Your task to perform on an android device: Turn off the flashlight Image 0: 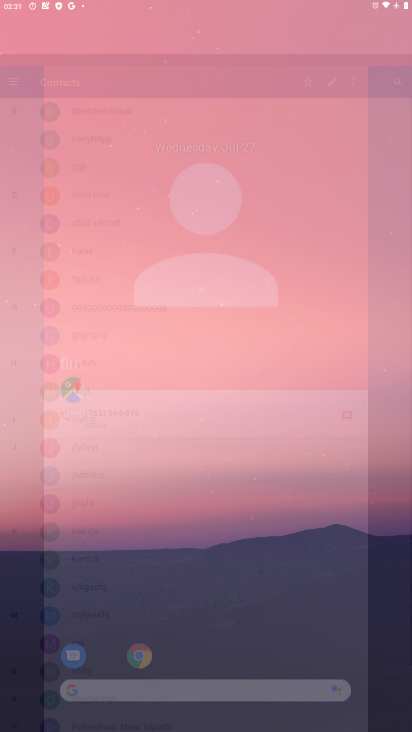
Step 0: click (258, 390)
Your task to perform on an android device: Turn off the flashlight Image 1: 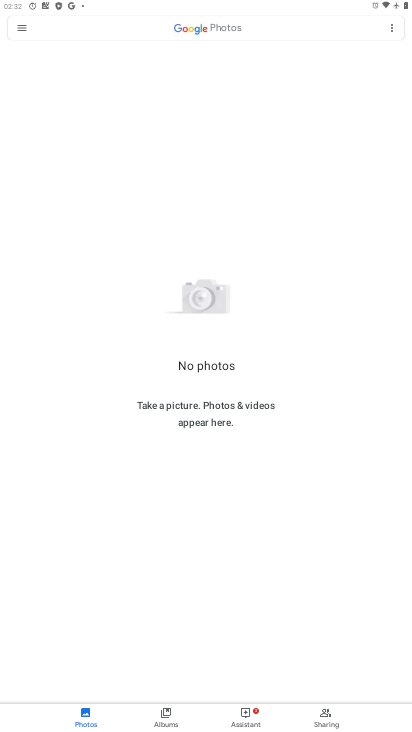
Step 1: task complete